Your task to perform on an android device: open a new tab in the chrome app Image 0: 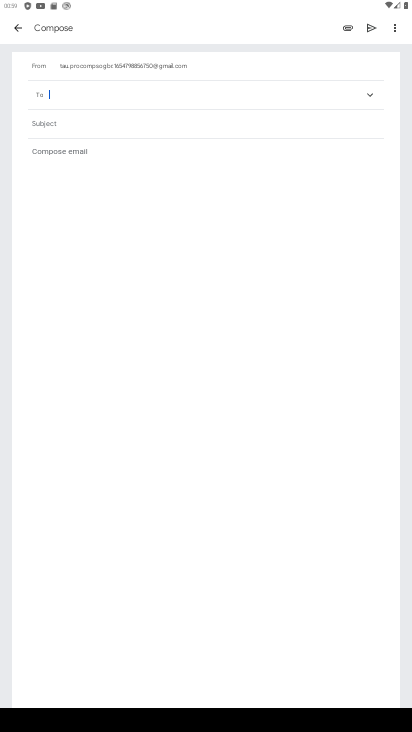
Step 0: click (18, 33)
Your task to perform on an android device: open a new tab in the chrome app Image 1: 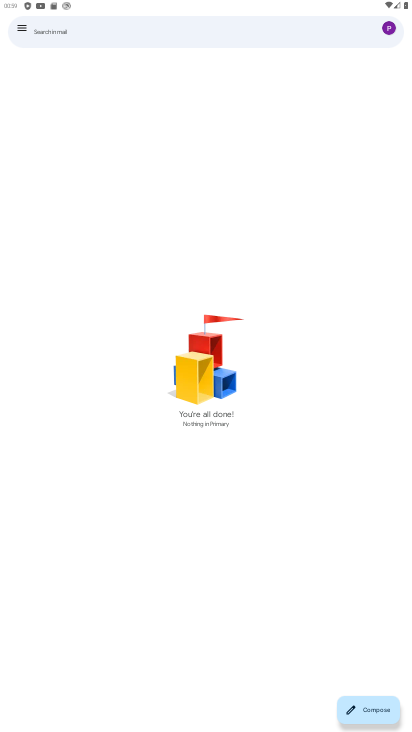
Step 1: click (16, 34)
Your task to perform on an android device: open a new tab in the chrome app Image 2: 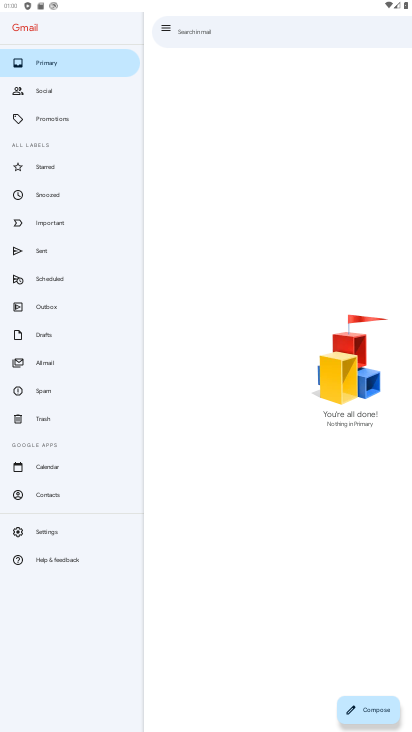
Step 2: press home button
Your task to perform on an android device: open a new tab in the chrome app Image 3: 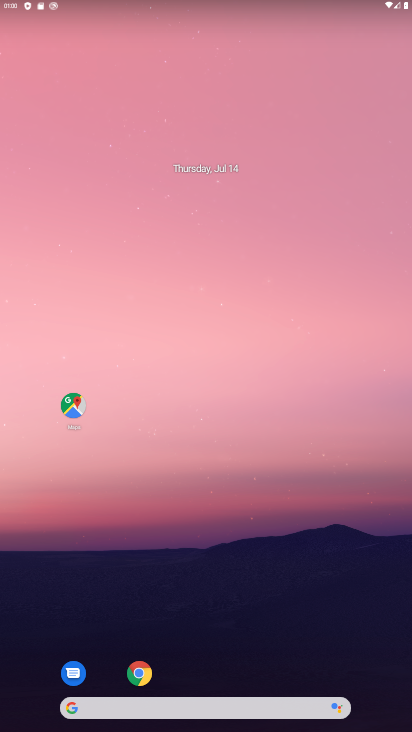
Step 3: drag from (291, 664) to (290, 85)
Your task to perform on an android device: open a new tab in the chrome app Image 4: 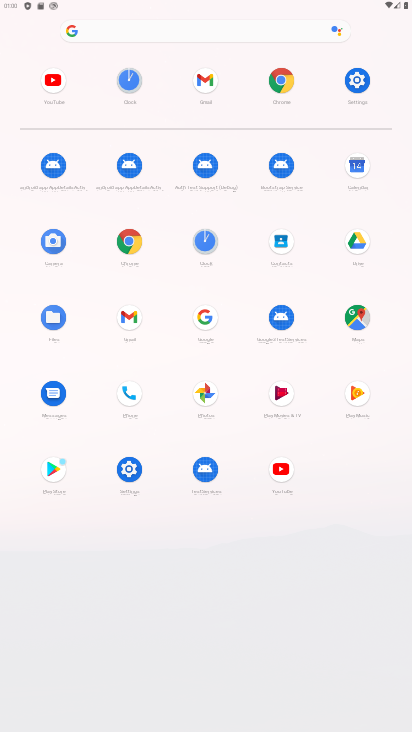
Step 4: click (291, 87)
Your task to perform on an android device: open a new tab in the chrome app Image 5: 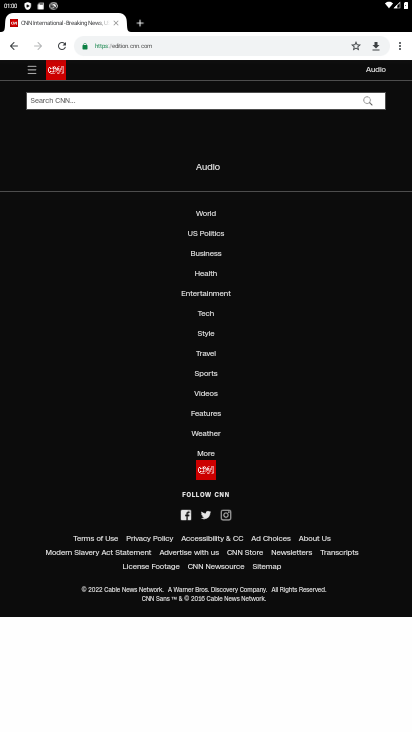
Step 5: click (400, 60)
Your task to perform on an android device: open a new tab in the chrome app Image 6: 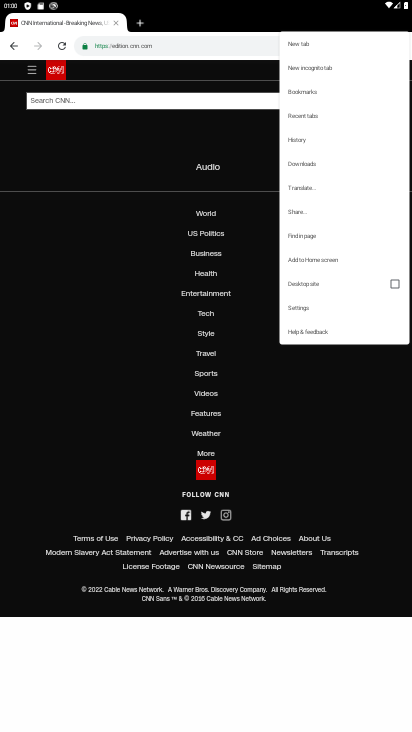
Step 6: click (307, 49)
Your task to perform on an android device: open a new tab in the chrome app Image 7: 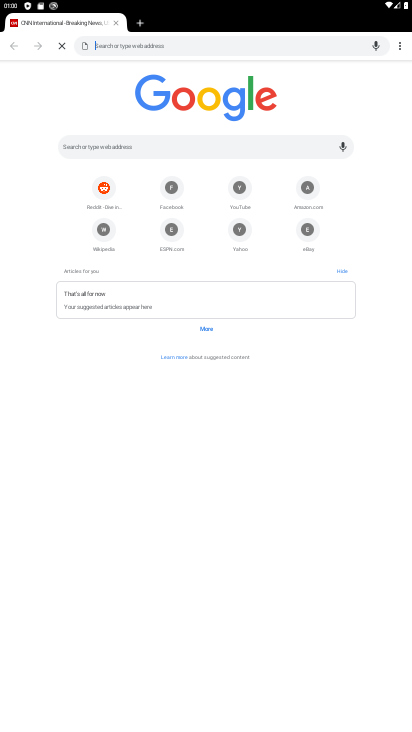
Step 7: task complete